Your task to perform on an android device: Do I have any events today? Image 0: 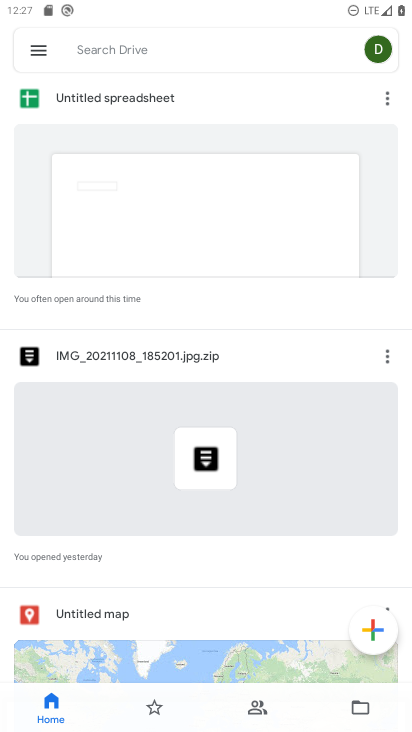
Step 0: press home button
Your task to perform on an android device: Do I have any events today? Image 1: 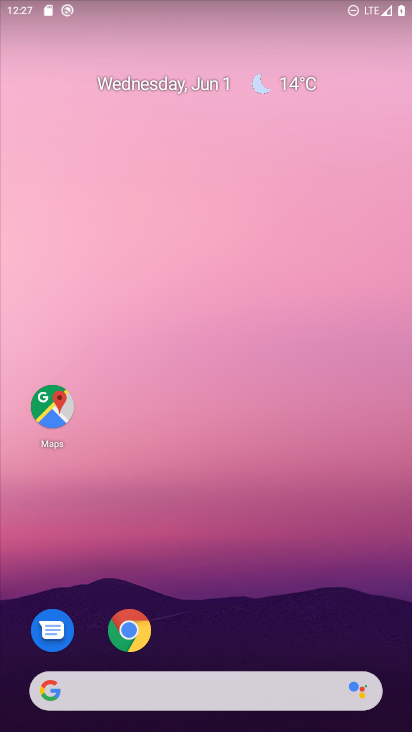
Step 1: drag from (241, 560) to (248, 50)
Your task to perform on an android device: Do I have any events today? Image 2: 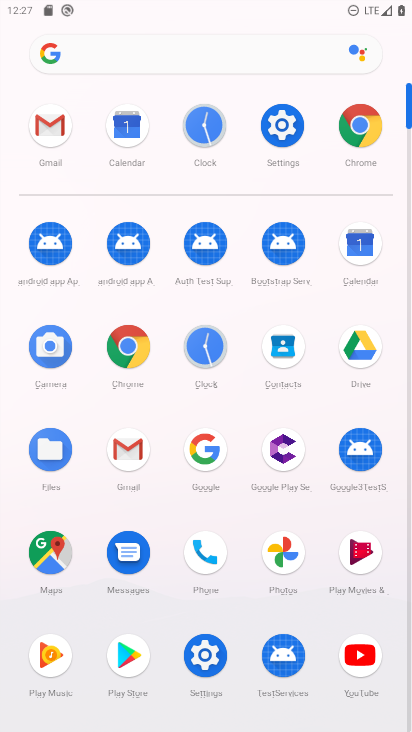
Step 2: click (364, 238)
Your task to perform on an android device: Do I have any events today? Image 3: 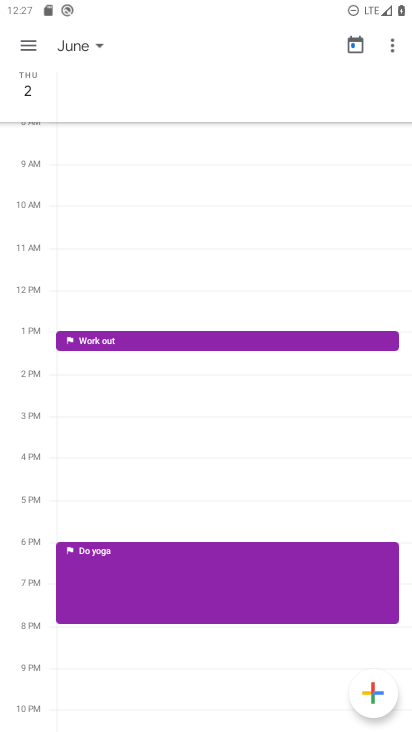
Step 3: click (64, 45)
Your task to perform on an android device: Do I have any events today? Image 4: 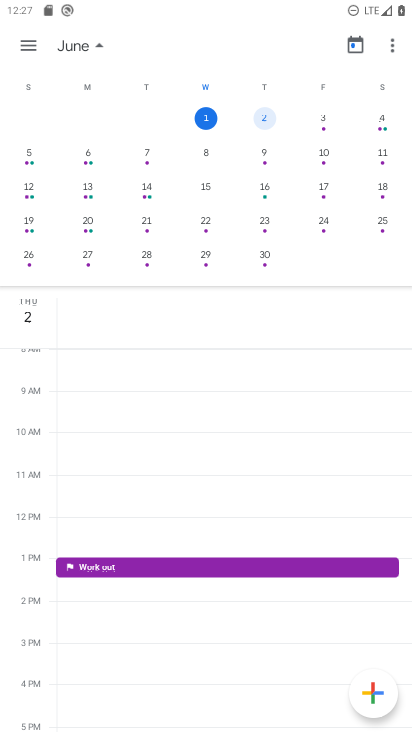
Step 4: click (201, 115)
Your task to perform on an android device: Do I have any events today? Image 5: 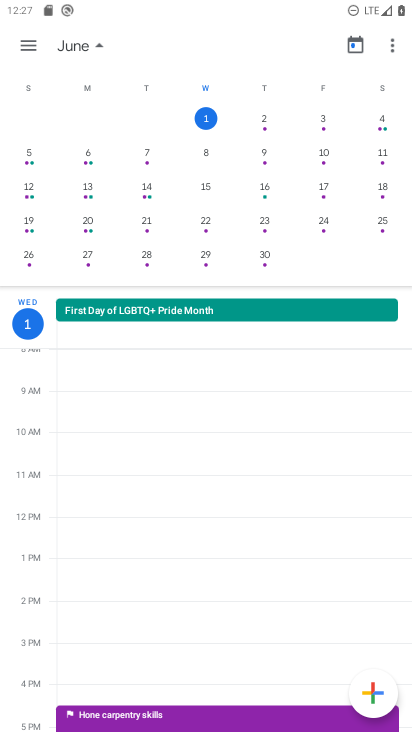
Step 5: task complete